Your task to perform on an android device: Open Youtube and go to the subscriptions tab Image 0: 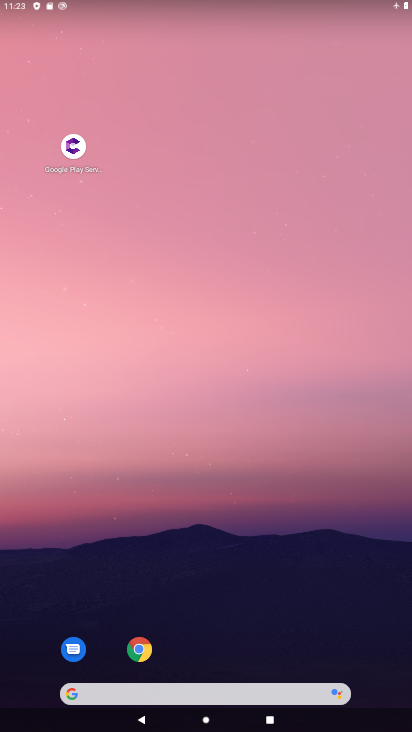
Step 0: drag from (201, 610) to (189, 0)
Your task to perform on an android device: Open Youtube and go to the subscriptions tab Image 1: 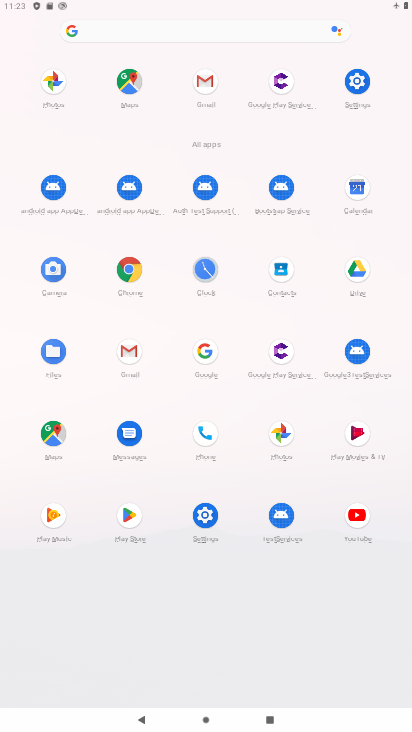
Step 1: click (360, 518)
Your task to perform on an android device: Open Youtube and go to the subscriptions tab Image 2: 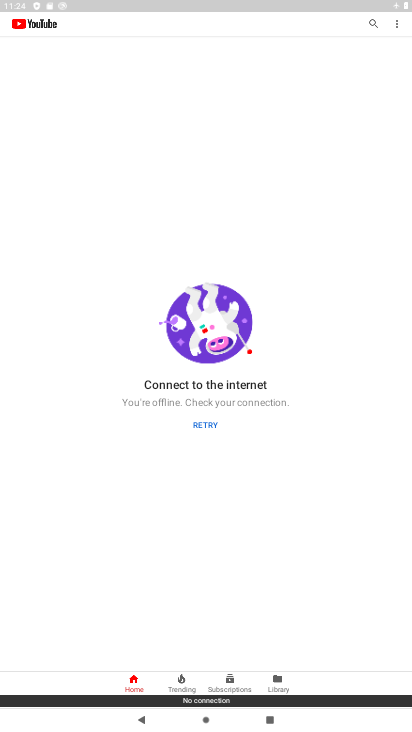
Step 2: click (229, 679)
Your task to perform on an android device: Open Youtube and go to the subscriptions tab Image 3: 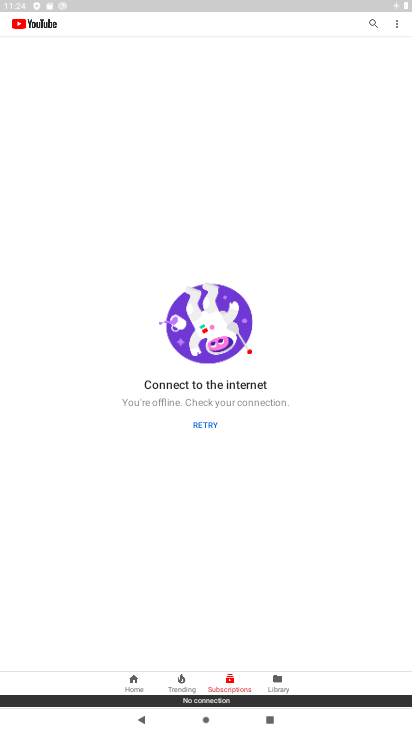
Step 3: click (208, 420)
Your task to perform on an android device: Open Youtube and go to the subscriptions tab Image 4: 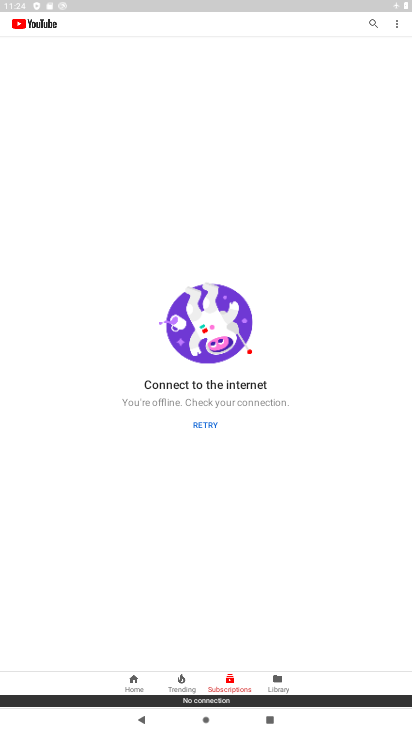
Step 4: task complete